Your task to perform on an android device: turn pop-ups on in chrome Image 0: 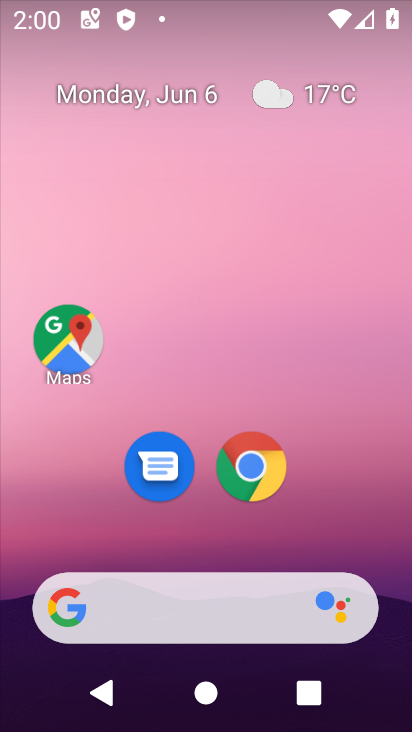
Step 0: click (263, 456)
Your task to perform on an android device: turn pop-ups on in chrome Image 1: 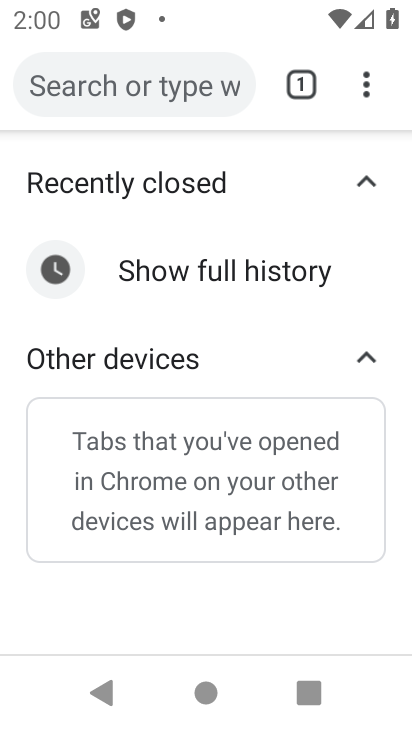
Step 1: drag from (370, 93) to (209, 516)
Your task to perform on an android device: turn pop-ups on in chrome Image 2: 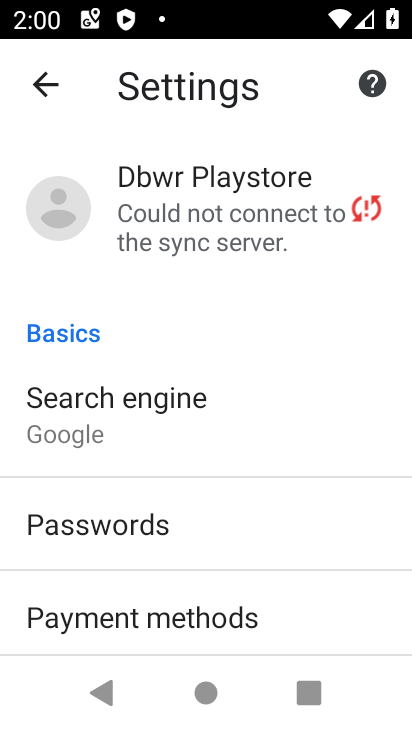
Step 2: drag from (314, 353) to (298, 91)
Your task to perform on an android device: turn pop-ups on in chrome Image 3: 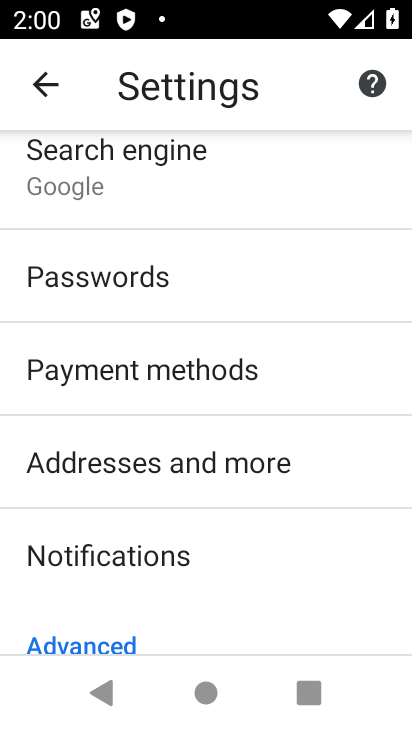
Step 3: drag from (274, 600) to (300, 172)
Your task to perform on an android device: turn pop-ups on in chrome Image 4: 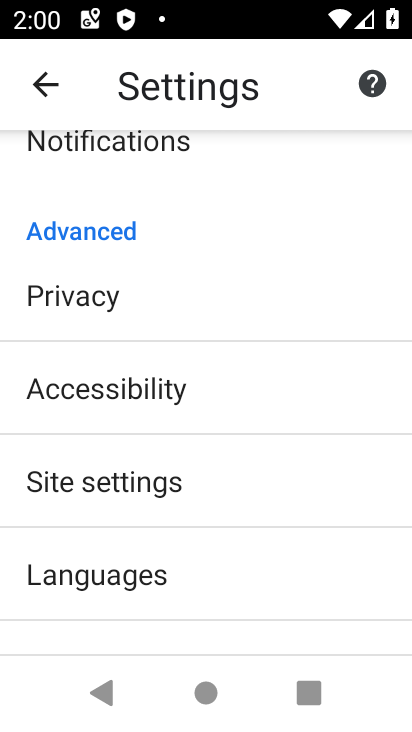
Step 4: click (106, 489)
Your task to perform on an android device: turn pop-ups on in chrome Image 5: 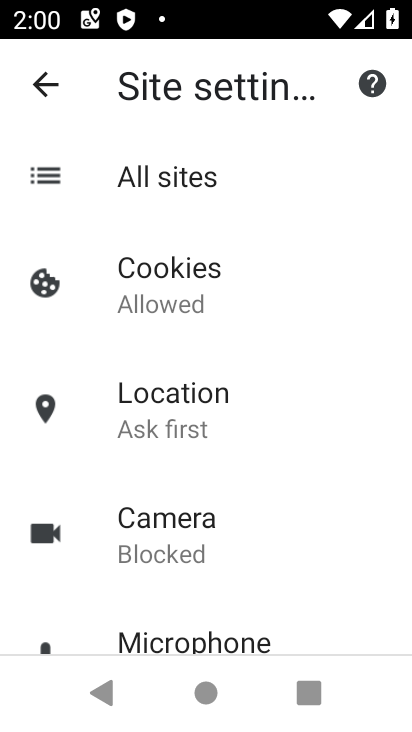
Step 5: drag from (295, 341) to (315, 62)
Your task to perform on an android device: turn pop-ups on in chrome Image 6: 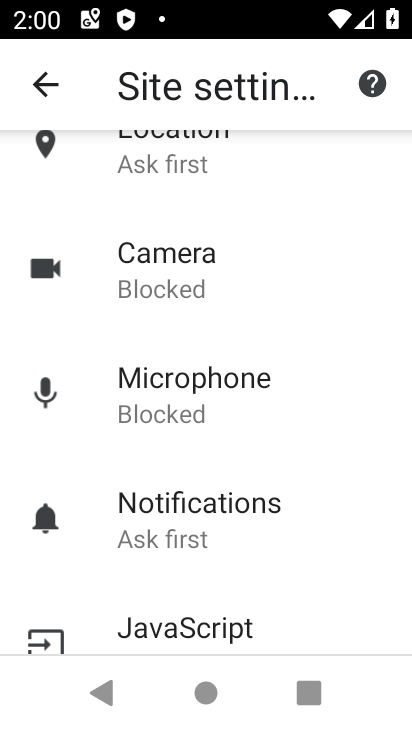
Step 6: drag from (56, 578) to (66, 275)
Your task to perform on an android device: turn pop-ups on in chrome Image 7: 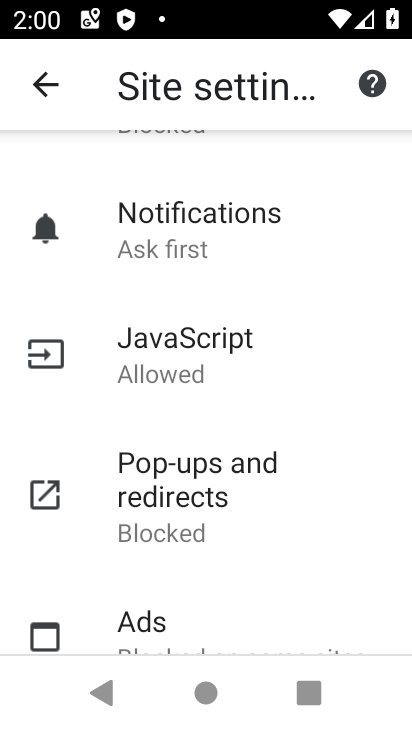
Step 7: click (235, 495)
Your task to perform on an android device: turn pop-ups on in chrome Image 8: 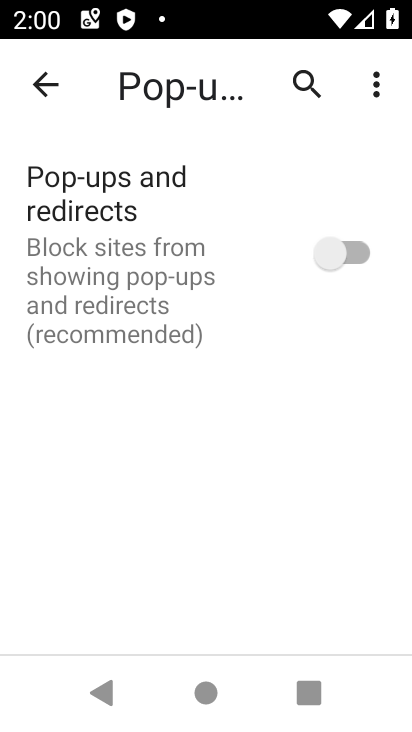
Step 8: click (358, 251)
Your task to perform on an android device: turn pop-ups on in chrome Image 9: 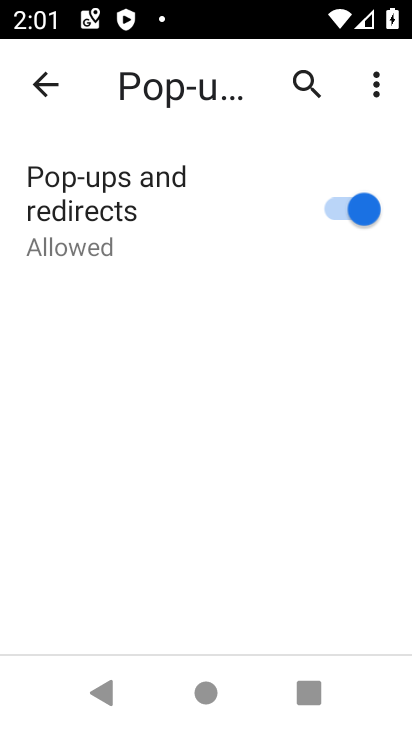
Step 9: task complete